Your task to perform on an android device: Open the stopwatch Image 0: 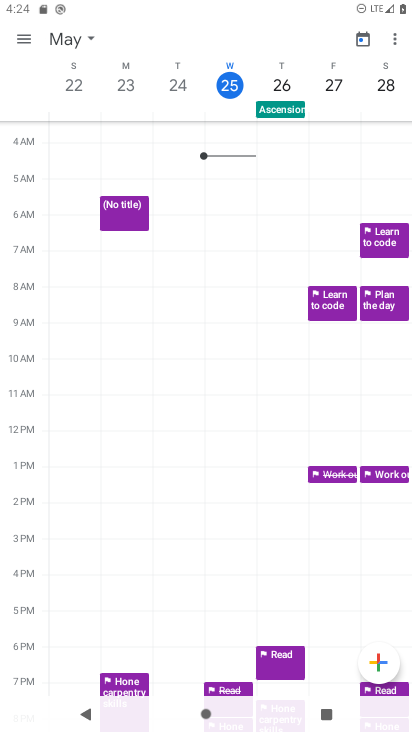
Step 0: press home button
Your task to perform on an android device: Open the stopwatch Image 1: 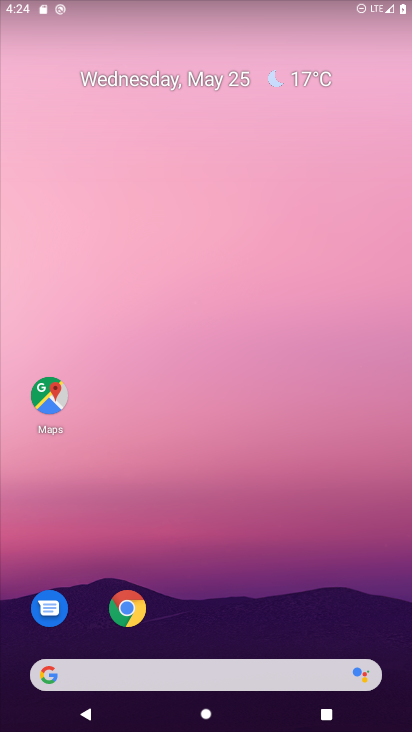
Step 1: drag from (369, 622) to (304, 111)
Your task to perform on an android device: Open the stopwatch Image 2: 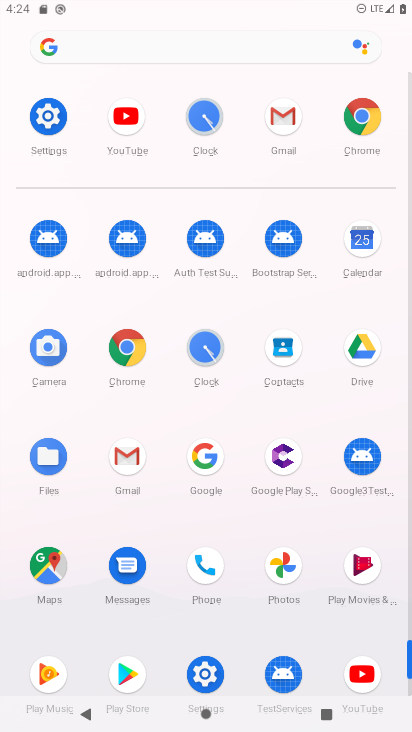
Step 2: click (206, 345)
Your task to perform on an android device: Open the stopwatch Image 3: 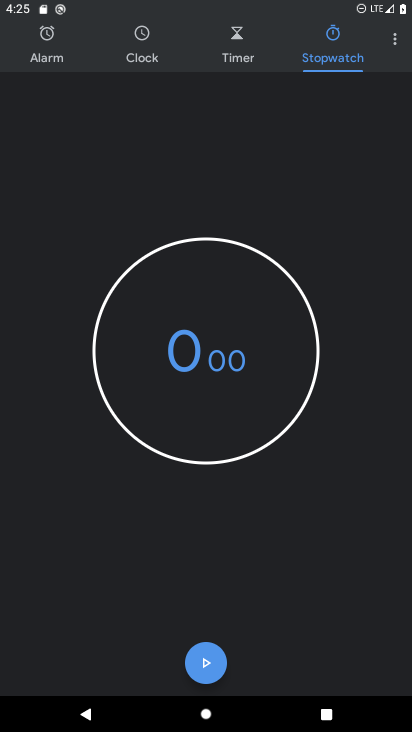
Step 3: task complete